Your task to perform on an android device: Open Yahoo.com Image 0: 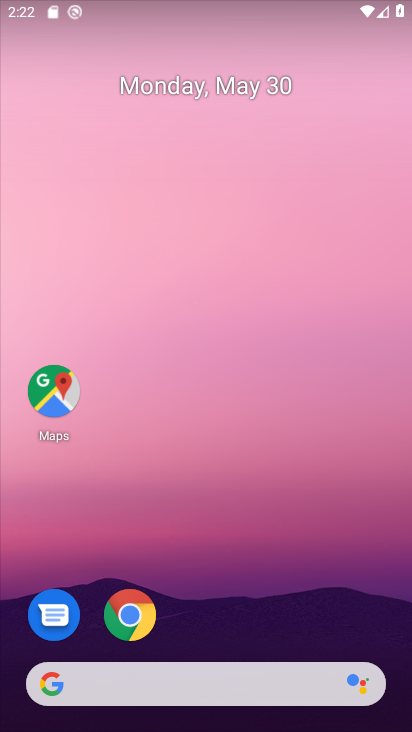
Step 0: drag from (238, 619) to (280, 15)
Your task to perform on an android device: Open Yahoo.com Image 1: 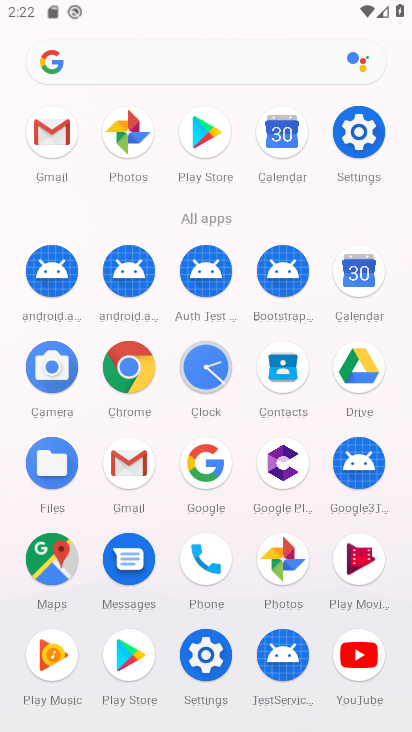
Step 1: press home button
Your task to perform on an android device: Open Yahoo.com Image 2: 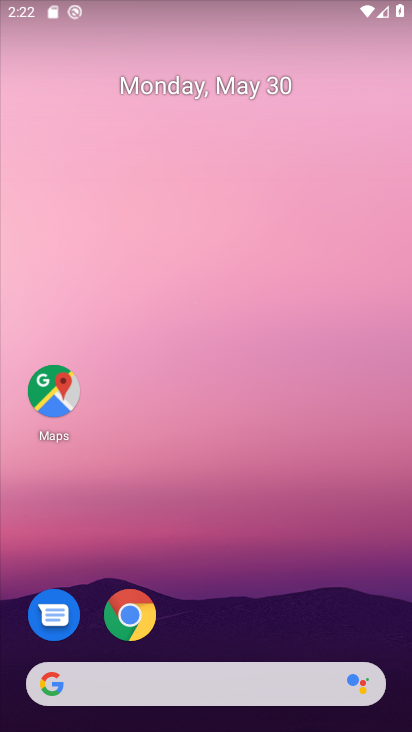
Step 2: click (237, 699)
Your task to perform on an android device: Open Yahoo.com Image 3: 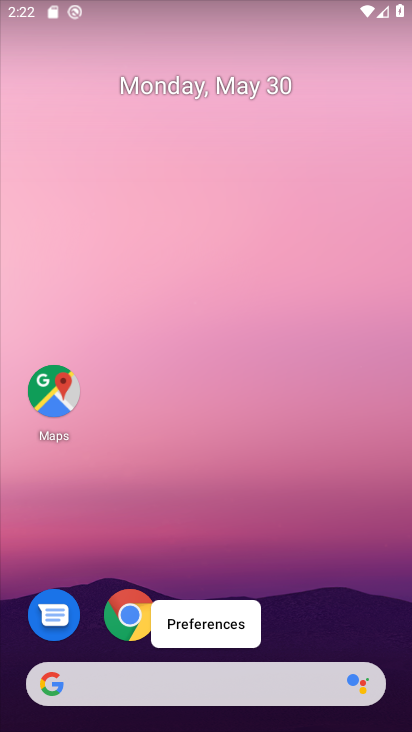
Step 3: click (253, 669)
Your task to perform on an android device: Open Yahoo.com Image 4: 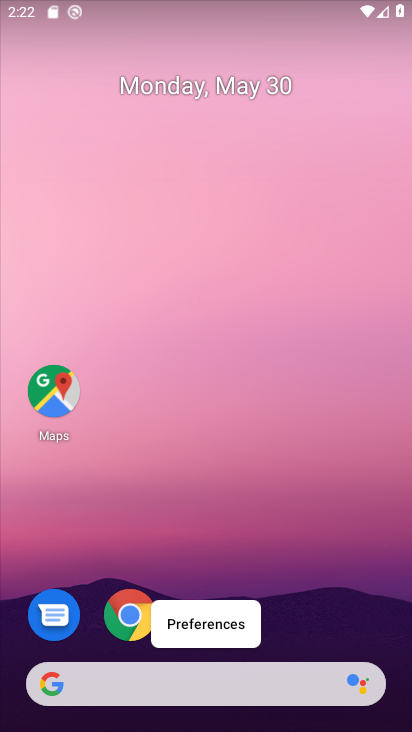
Step 4: click (207, 683)
Your task to perform on an android device: Open Yahoo.com Image 5: 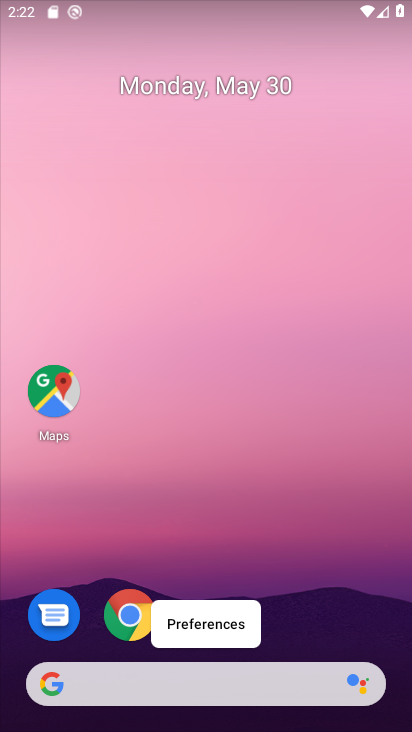
Step 5: click (104, 676)
Your task to perform on an android device: Open Yahoo.com Image 6: 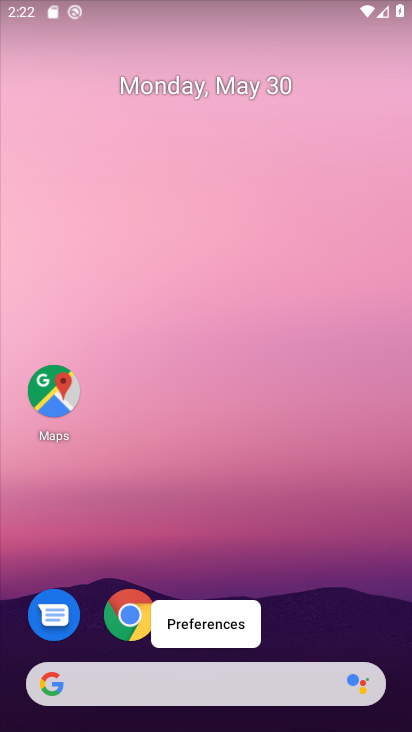
Step 6: click (104, 678)
Your task to perform on an android device: Open Yahoo.com Image 7: 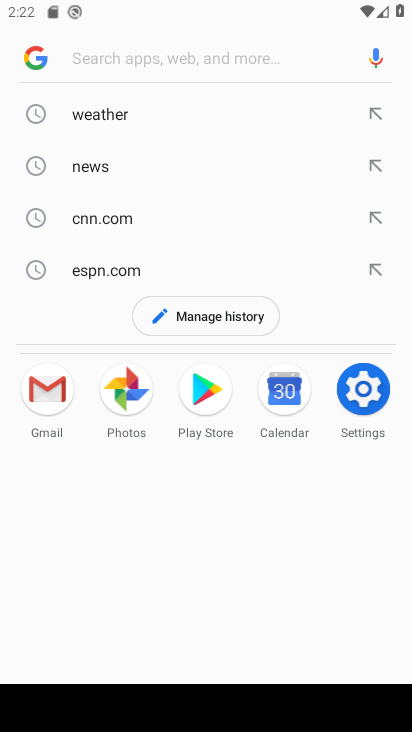
Step 7: type "yahoo.com"
Your task to perform on an android device: Open Yahoo.com Image 8: 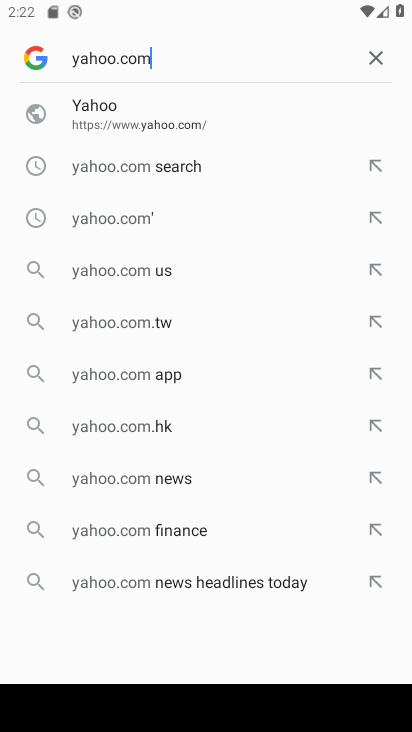
Step 8: click (118, 113)
Your task to perform on an android device: Open Yahoo.com Image 9: 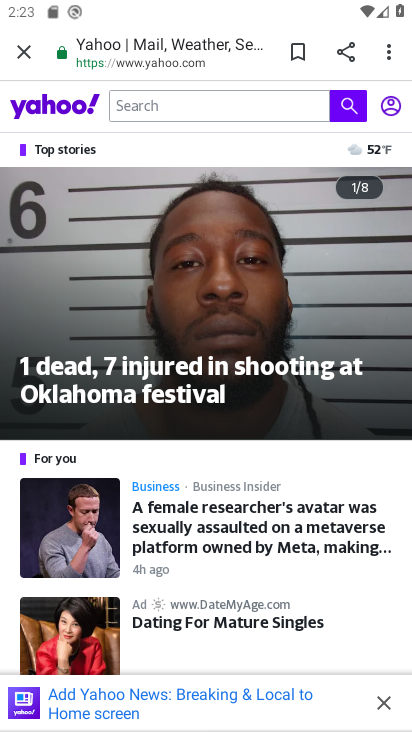
Step 9: task complete